Your task to perform on an android device: Show me recent news Image 0: 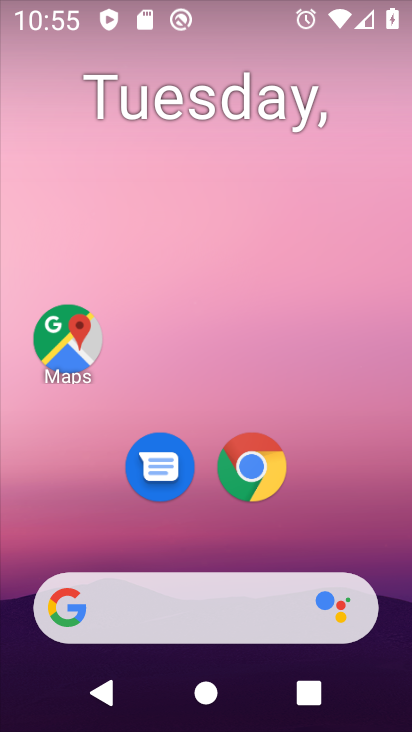
Step 0: drag from (0, 439) to (381, 317)
Your task to perform on an android device: Show me recent news Image 1: 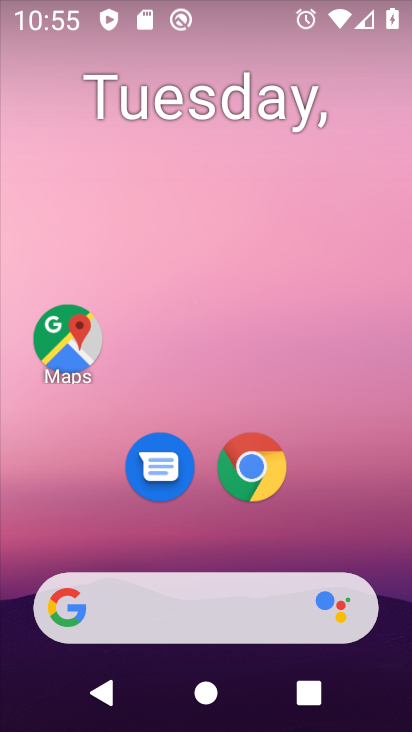
Step 1: task complete